Your task to perform on an android device: move a message to another label in the gmail app Image 0: 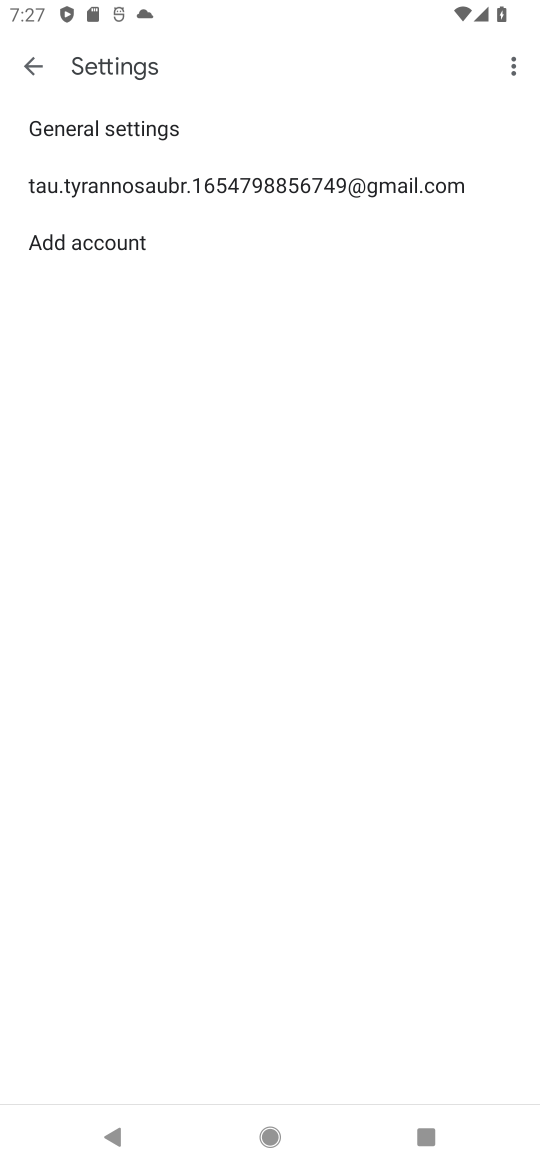
Step 0: click (39, 64)
Your task to perform on an android device: move a message to another label in the gmail app Image 1: 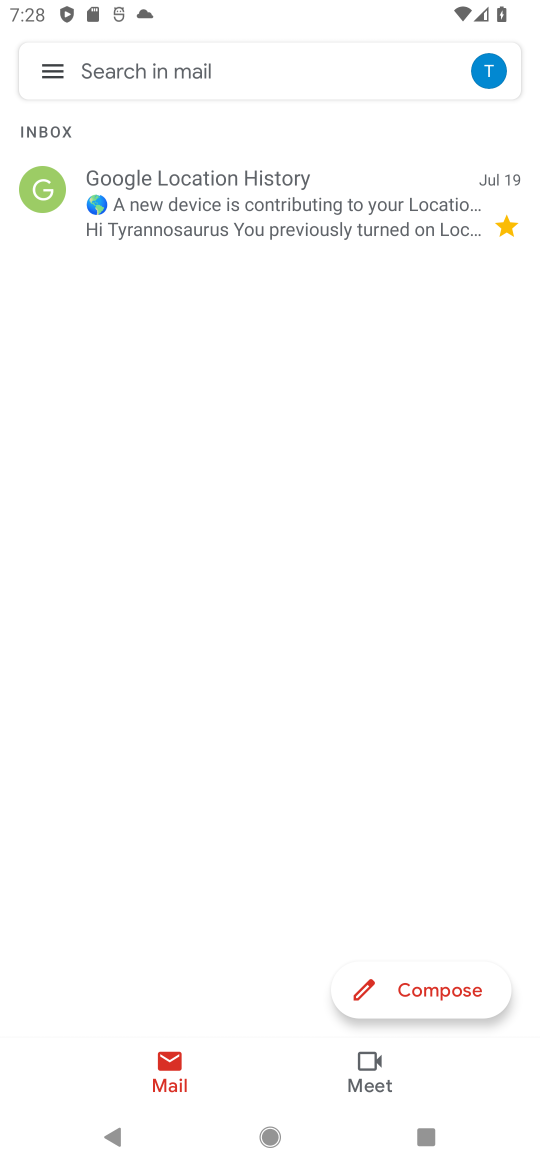
Step 1: click (327, 165)
Your task to perform on an android device: move a message to another label in the gmail app Image 2: 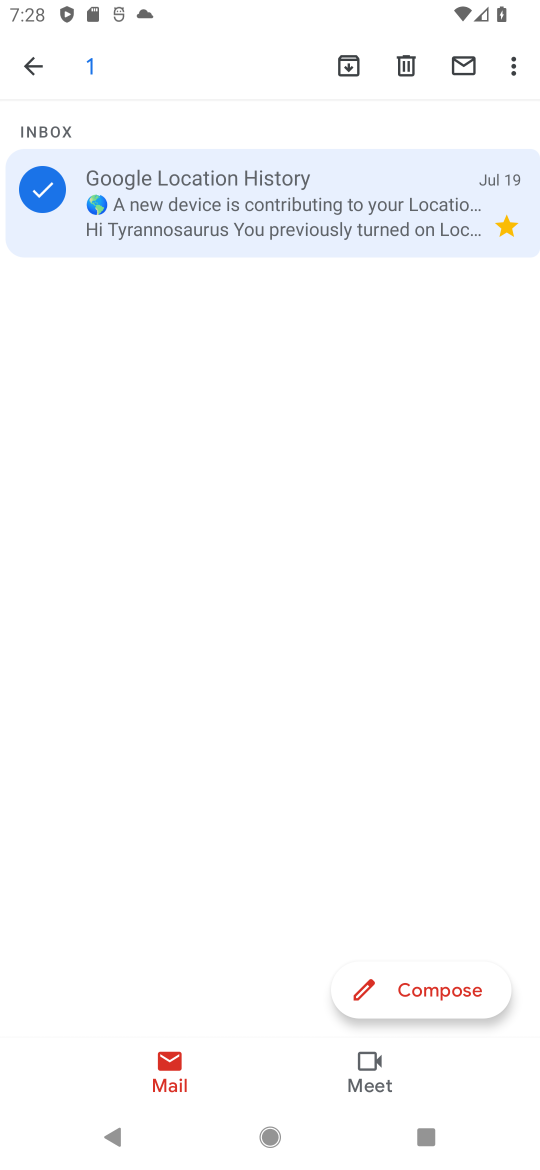
Step 2: click (507, 63)
Your task to perform on an android device: move a message to another label in the gmail app Image 3: 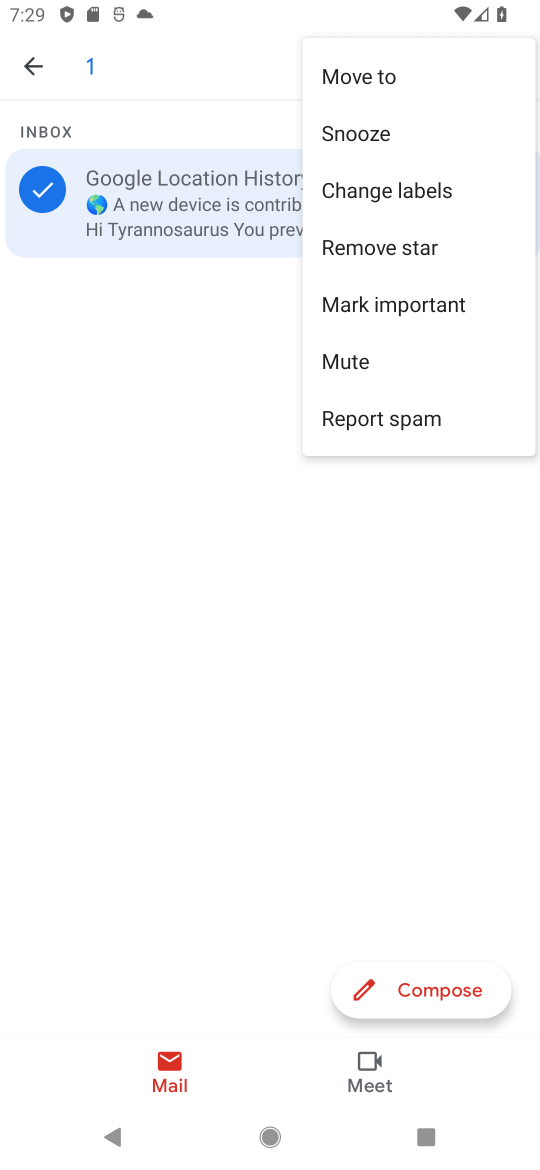
Step 3: click (399, 192)
Your task to perform on an android device: move a message to another label in the gmail app Image 4: 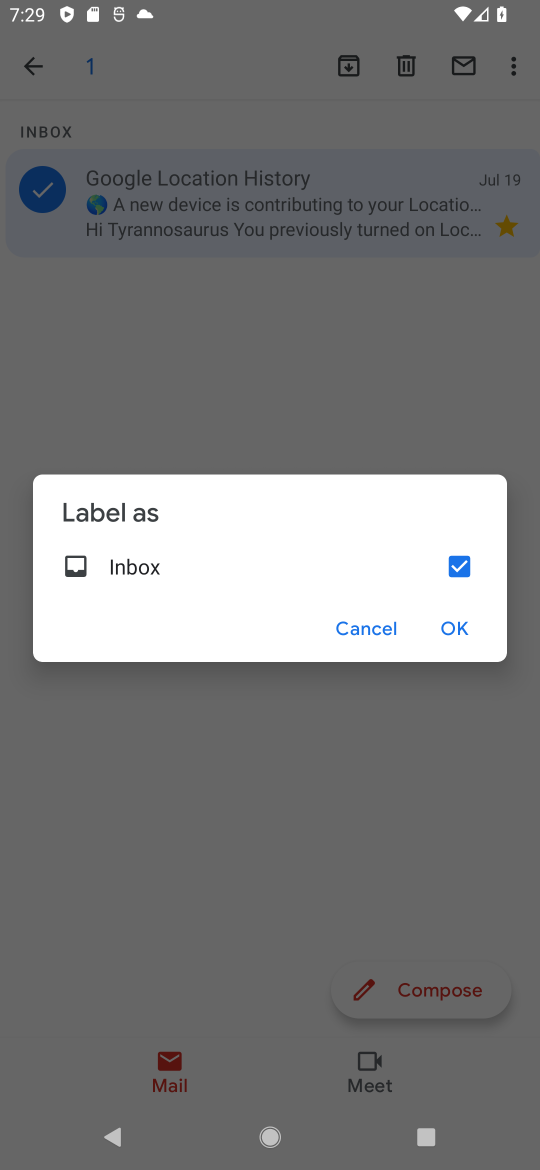
Step 4: click (454, 627)
Your task to perform on an android device: move a message to another label in the gmail app Image 5: 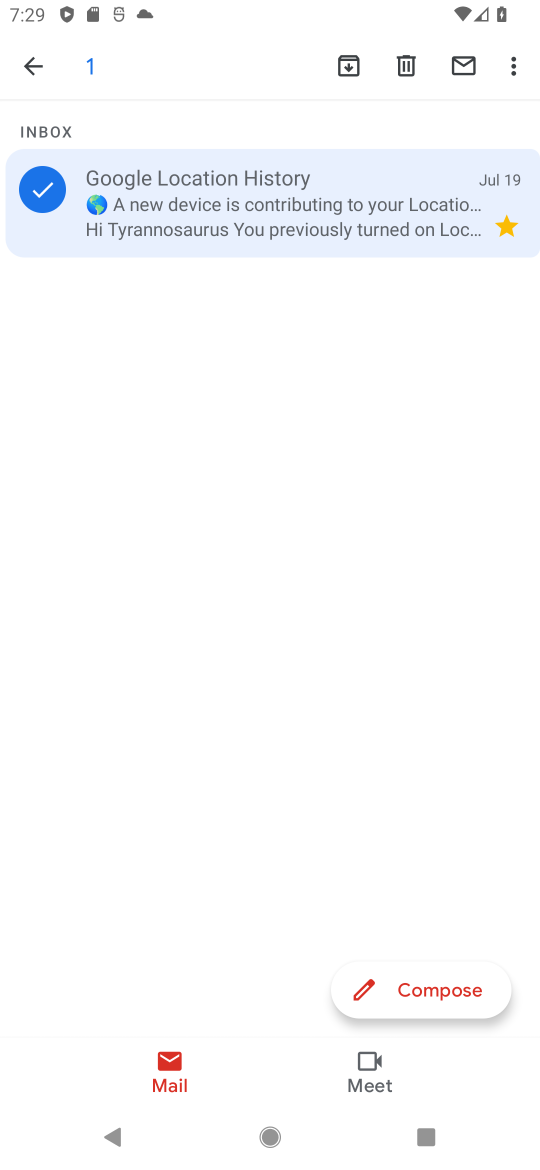
Step 5: task complete